Your task to perform on an android device: Go to Android settings Image 0: 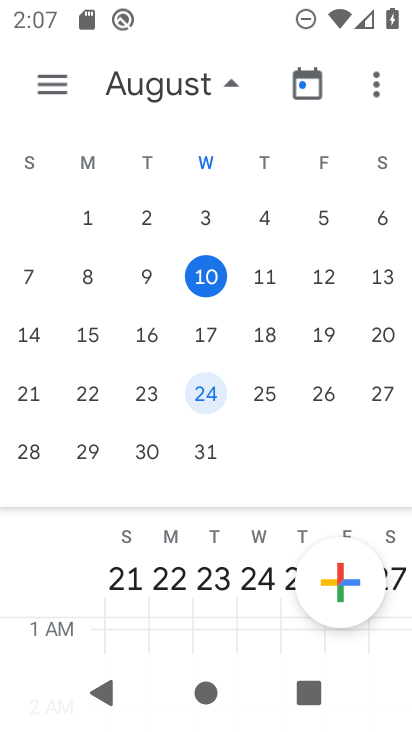
Step 0: press home button
Your task to perform on an android device: Go to Android settings Image 1: 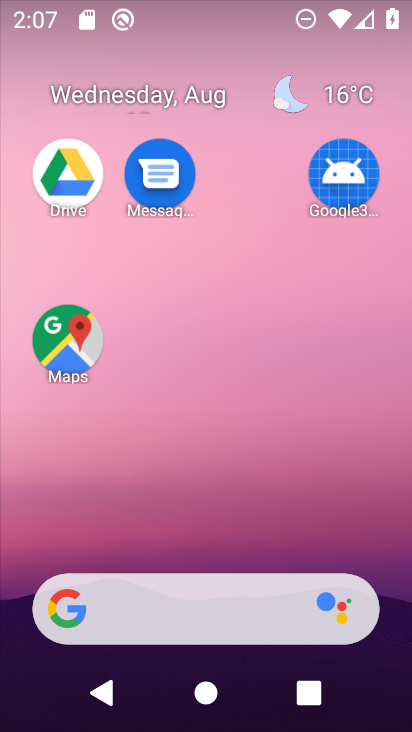
Step 1: drag from (191, 535) to (206, 52)
Your task to perform on an android device: Go to Android settings Image 2: 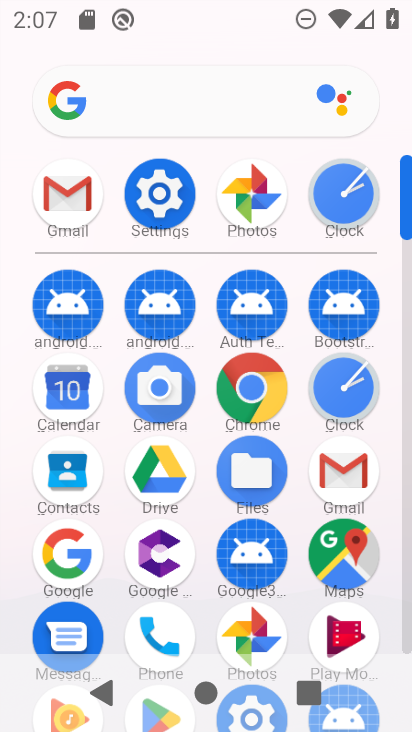
Step 2: click (164, 215)
Your task to perform on an android device: Go to Android settings Image 3: 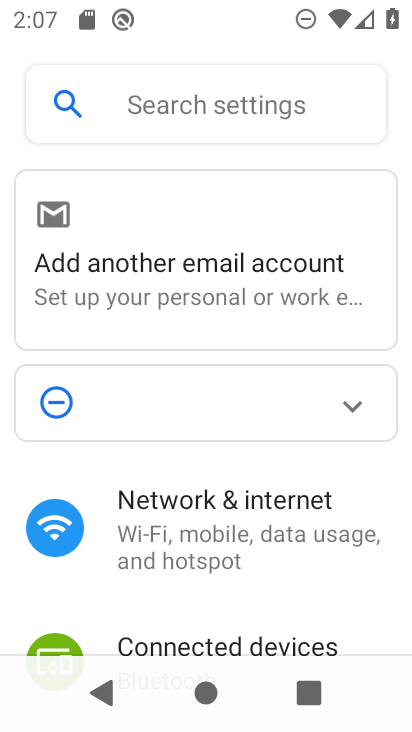
Step 3: task complete